Your task to perform on an android device: Open the calendar and show me this week's events? Image 0: 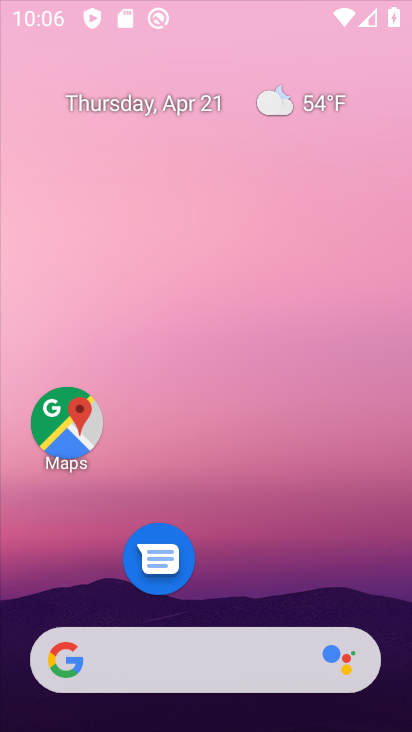
Step 0: drag from (245, 584) to (288, 75)
Your task to perform on an android device: Open the calendar and show me this week's events? Image 1: 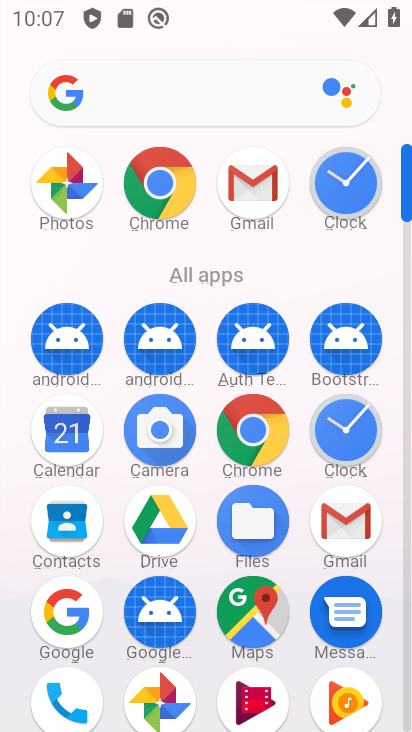
Step 1: click (75, 435)
Your task to perform on an android device: Open the calendar and show me this week's events? Image 2: 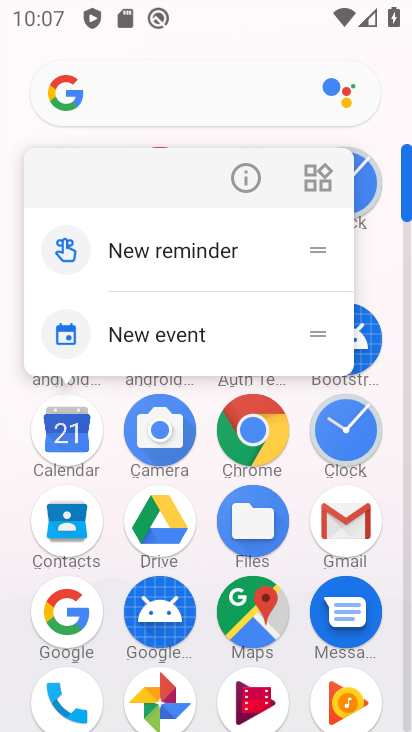
Step 2: click (74, 434)
Your task to perform on an android device: Open the calendar and show me this week's events? Image 3: 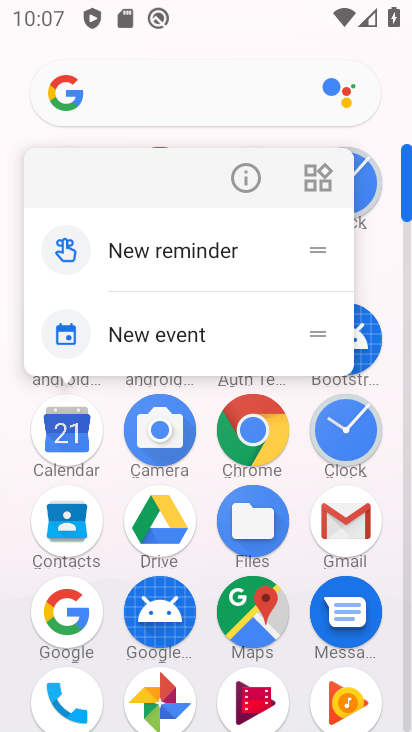
Step 3: click (54, 424)
Your task to perform on an android device: Open the calendar and show me this week's events? Image 4: 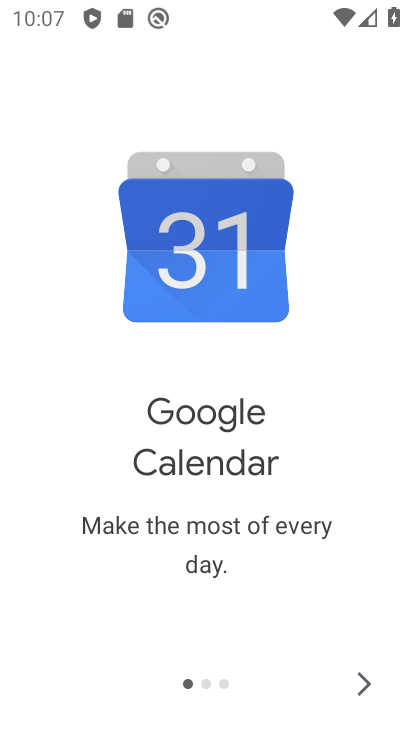
Step 4: click (372, 676)
Your task to perform on an android device: Open the calendar and show me this week's events? Image 5: 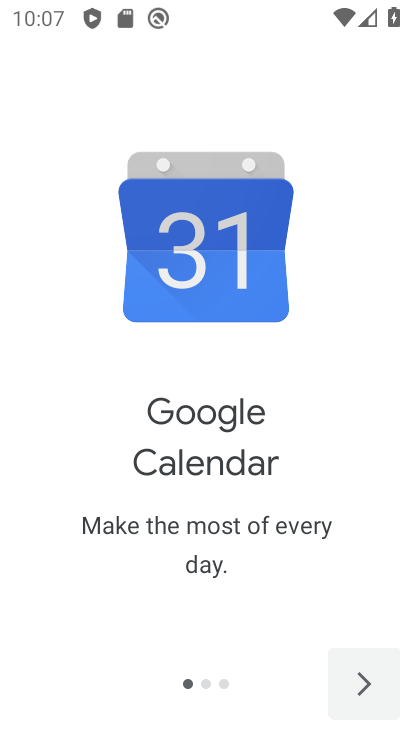
Step 5: click (372, 676)
Your task to perform on an android device: Open the calendar and show me this week's events? Image 6: 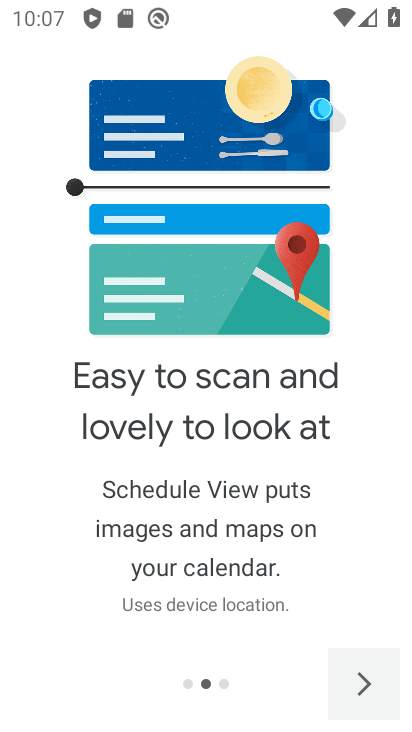
Step 6: click (372, 676)
Your task to perform on an android device: Open the calendar and show me this week's events? Image 7: 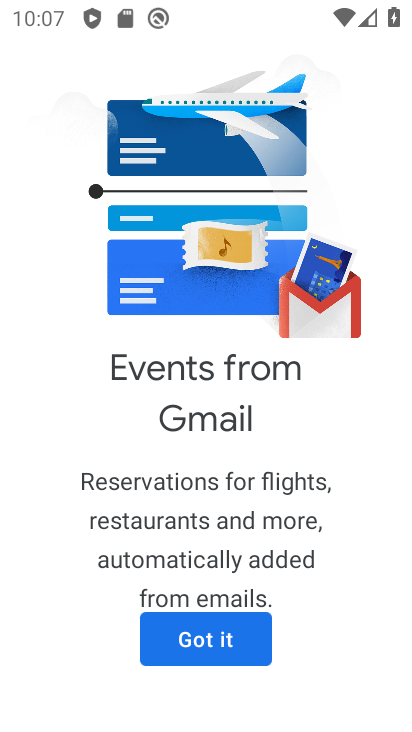
Step 7: click (227, 640)
Your task to perform on an android device: Open the calendar and show me this week's events? Image 8: 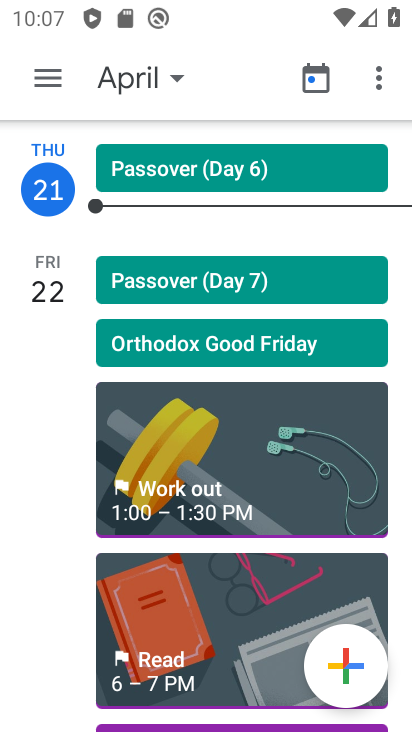
Step 8: click (378, 75)
Your task to perform on an android device: Open the calendar and show me this week's events? Image 9: 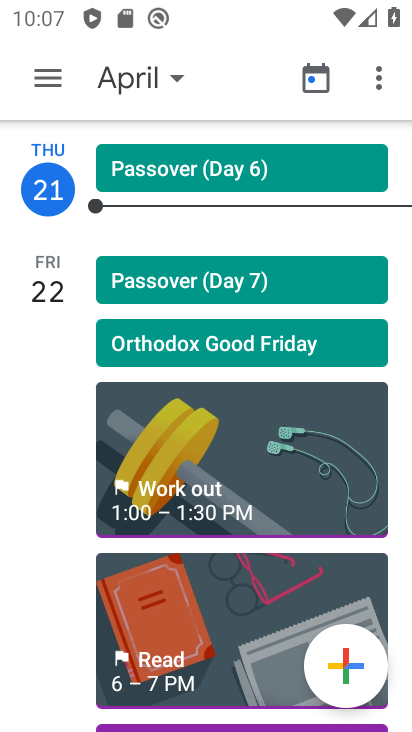
Step 9: drag from (225, 563) to (238, 74)
Your task to perform on an android device: Open the calendar and show me this week's events? Image 10: 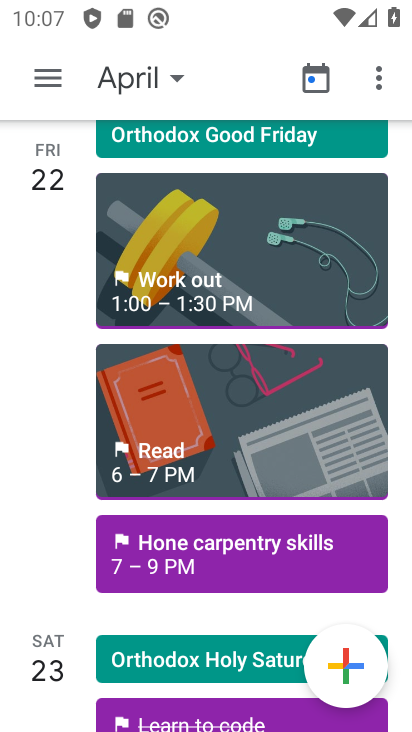
Step 10: click (185, 658)
Your task to perform on an android device: Open the calendar and show me this week's events? Image 11: 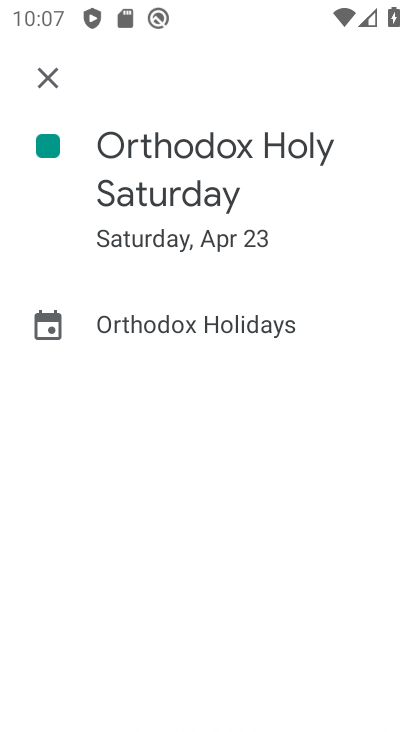
Step 11: task complete